Your task to perform on an android device: read, delete, or share a saved page in the chrome app Image 0: 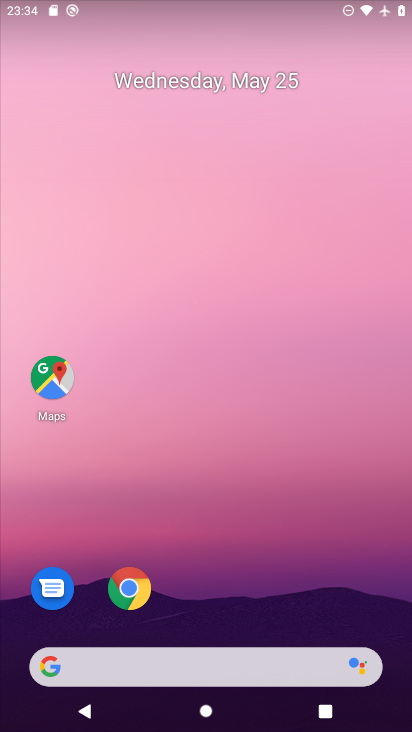
Step 0: drag from (270, 563) to (317, 72)
Your task to perform on an android device: read, delete, or share a saved page in the chrome app Image 1: 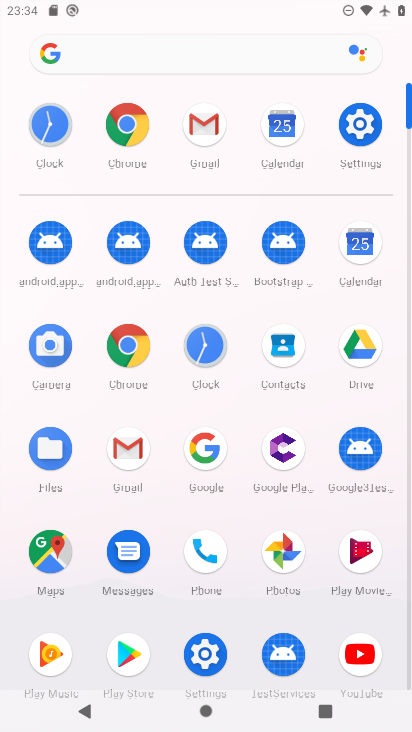
Step 1: click (137, 124)
Your task to perform on an android device: read, delete, or share a saved page in the chrome app Image 2: 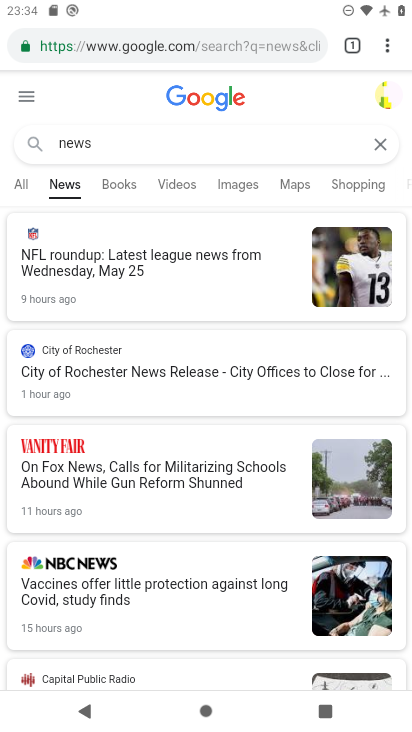
Step 2: task complete